Your task to perform on an android device: toggle javascript in the chrome app Image 0: 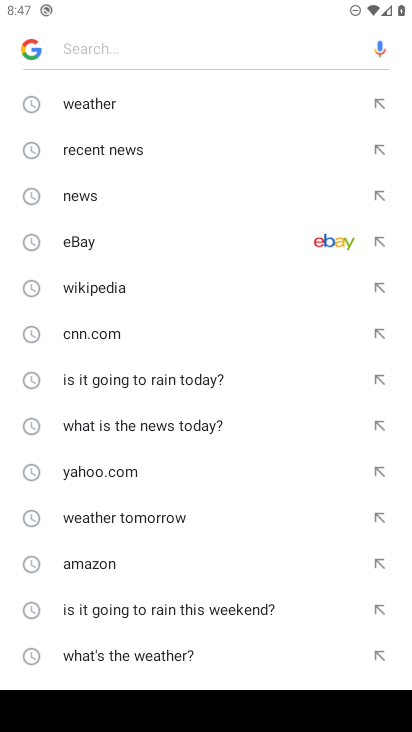
Step 0: press home button
Your task to perform on an android device: toggle javascript in the chrome app Image 1: 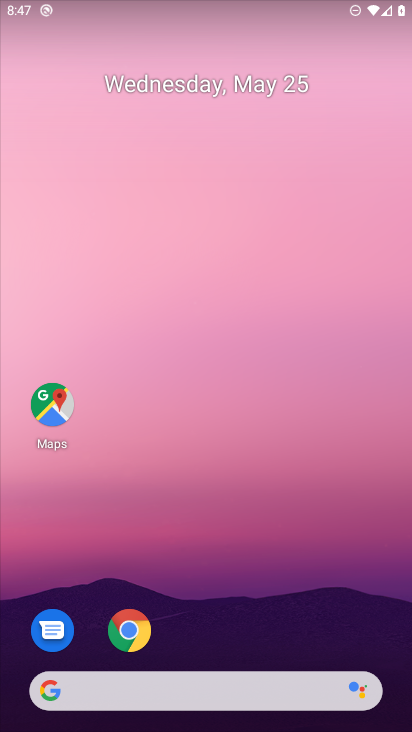
Step 1: click (144, 621)
Your task to perform on an android device: toggle javascript in the chrome app Image 2: 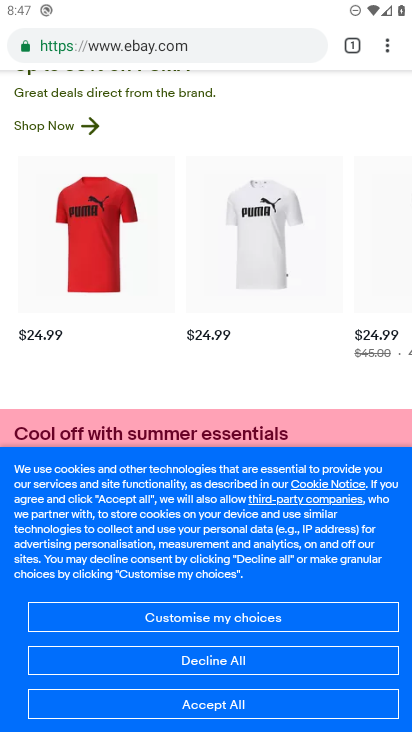
Step 2: click (391, 45)
Your task to perform on an android device: toggle javascript in the chrome app Image 3: 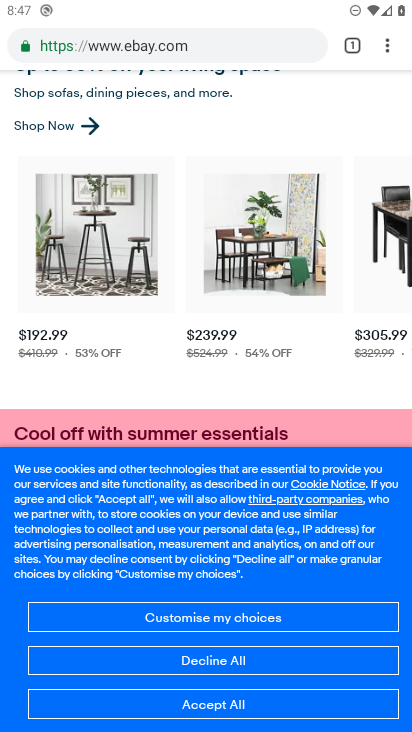
Step 3: click (382, 49)
Your task to perform on an android device: toggle javascript in the chrome app Image 4: 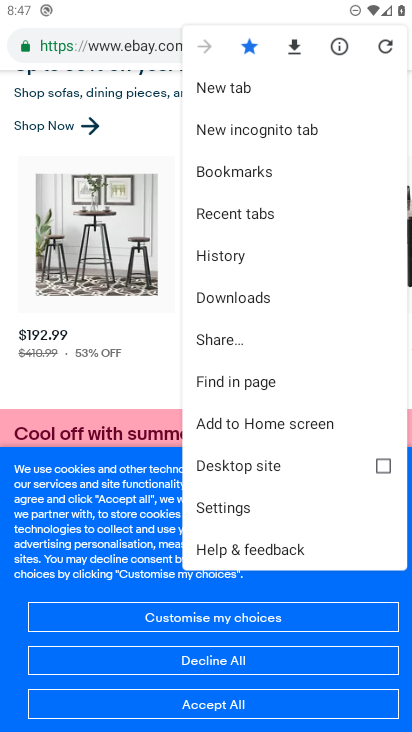
Step 4: click (246, 504)
Your task to perform on an android device: toggle javascript in the chrome app Image 5: 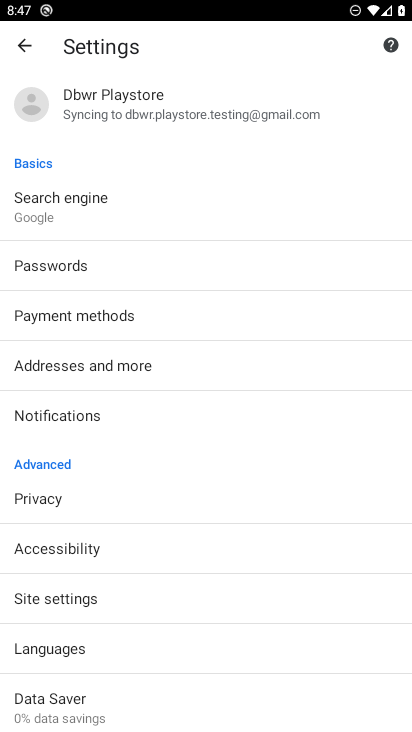
Step 5: click (69, 588)
Your task to perform on an android device: toggle javascript in the chrome app Image 6: 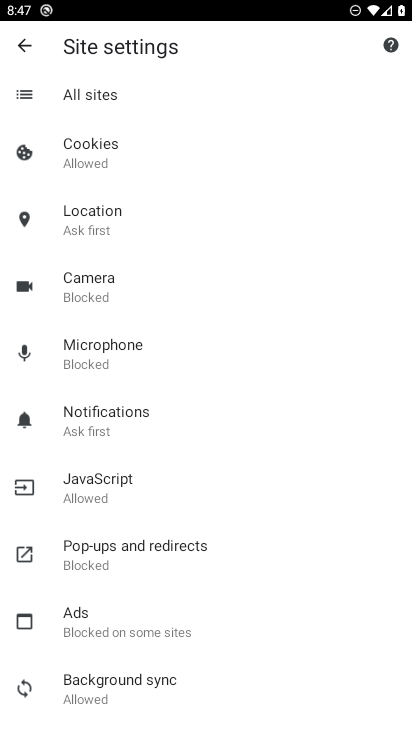
Step 6: click (134, 484)
Your task to perform on an android device: toggle javascript in the chrome app Image 7: 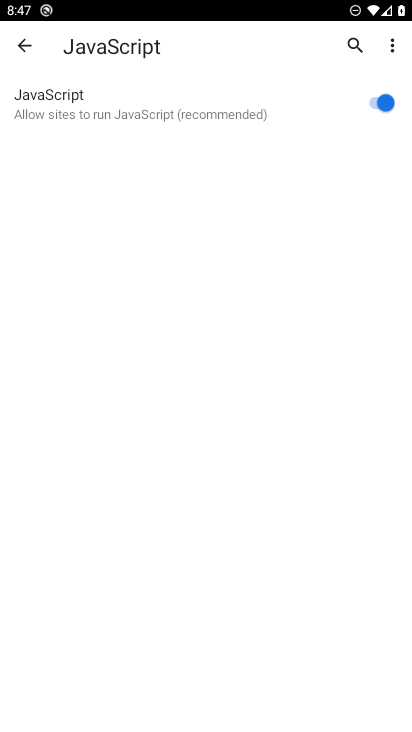
Step 7: click (371, 101)
Your task to perform on an android device: toggle javascript in the chrome app Image 8: 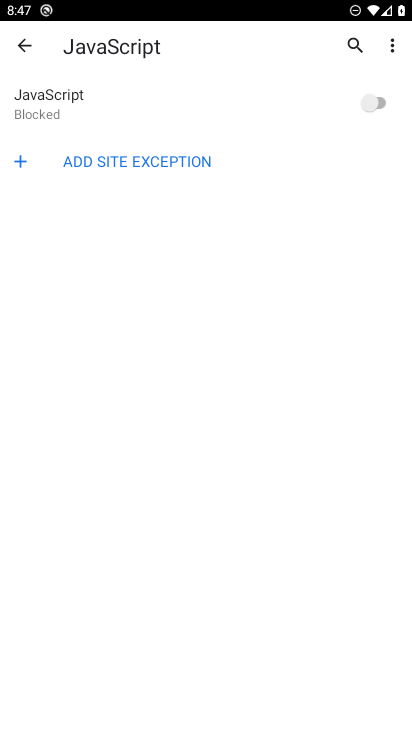
Step 8: task complete